Your task to perform on an android device: change alarm snooze length Image 0: 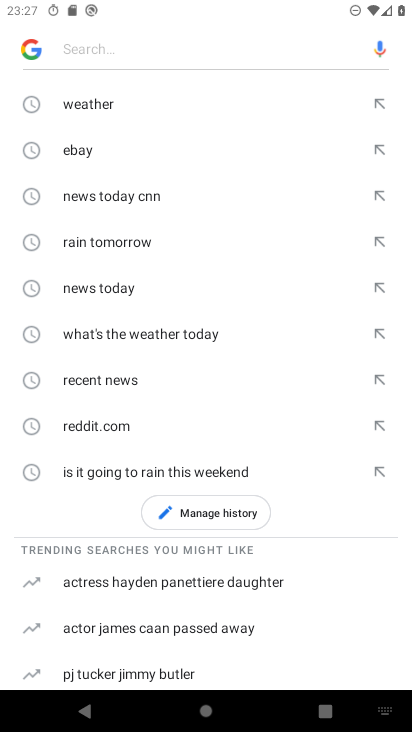
Step 0: press home button
Your task to perform on an android device: change alarm snooze length Image 1: 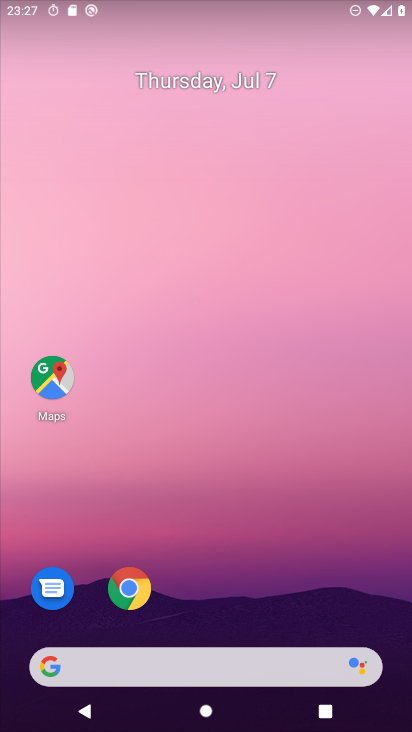
Step 1: drag from (278, 602) to (262, 115)
Your task to perform on an android device: change alarm snooze length Image 2: 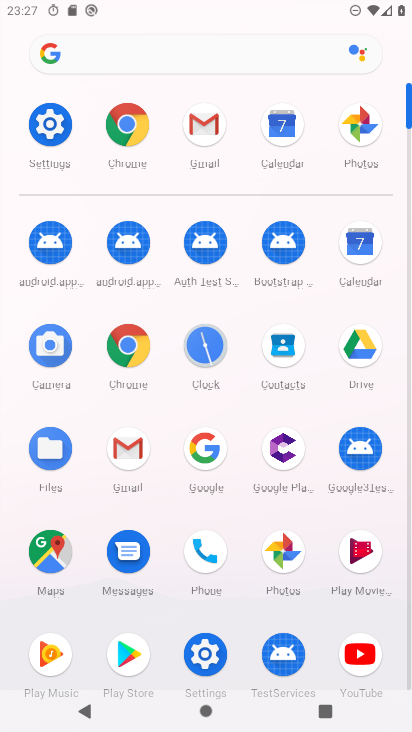
Step 2: click (207, 351)
Your task to perform on an android device: change alarm snooze length Image 3: 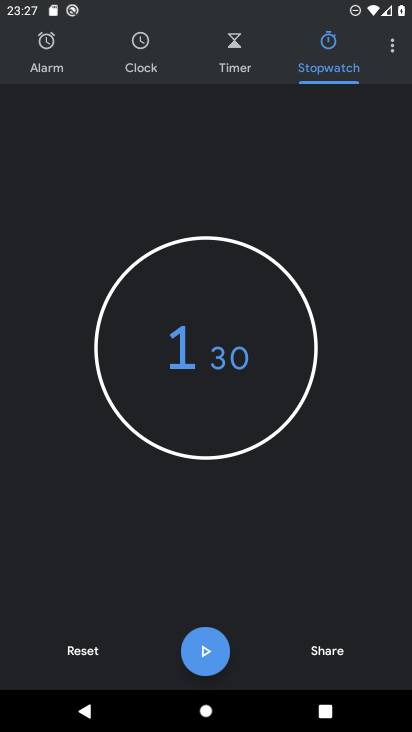
Step 3: click (395, 50)
Your task to perform on an android device: change alarm snooze length Image 4: 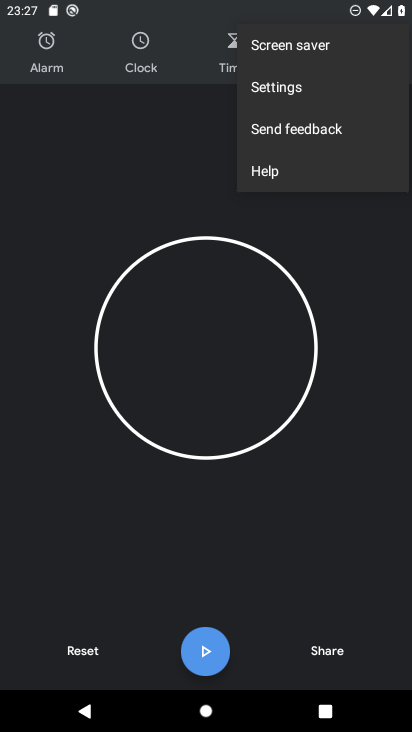
Step 4: click (277, 92)
Your task to perform on an android device: change alarm snooze length Image 5: 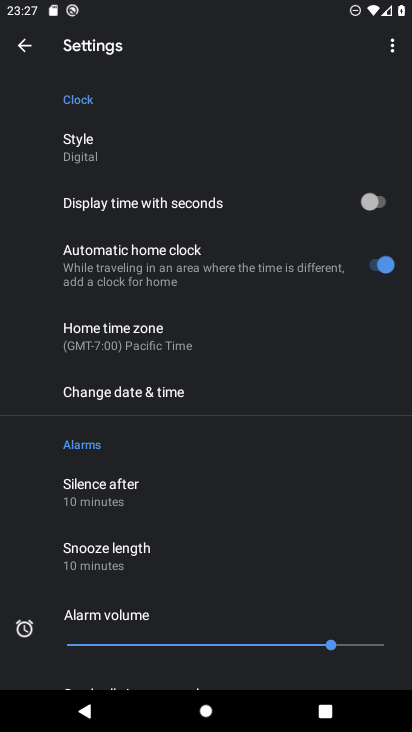
Step 5: click (141, 556)
Your task to perform on an android device: change alarm snooze length Image 6: 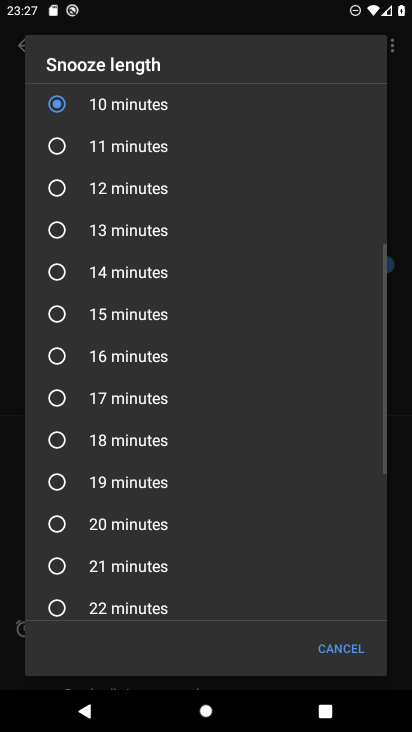
Step 6: click (95, 141)
Your task to perform on an android device: change alarm snooze length Image 7: 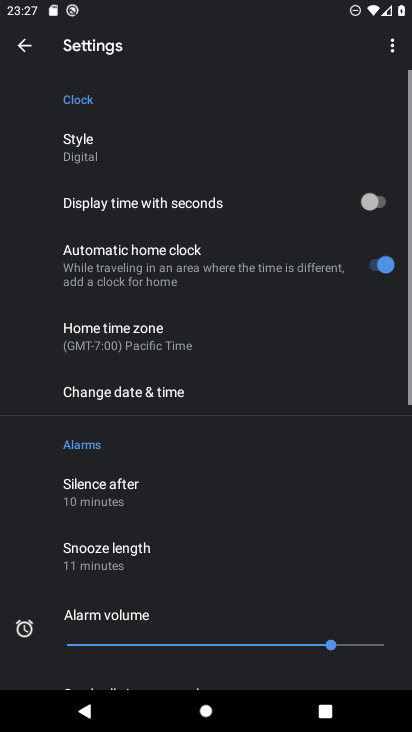
Step 7: task complete